Your task to perform on an android device: find snoozed emails in the gmail app Image 0: 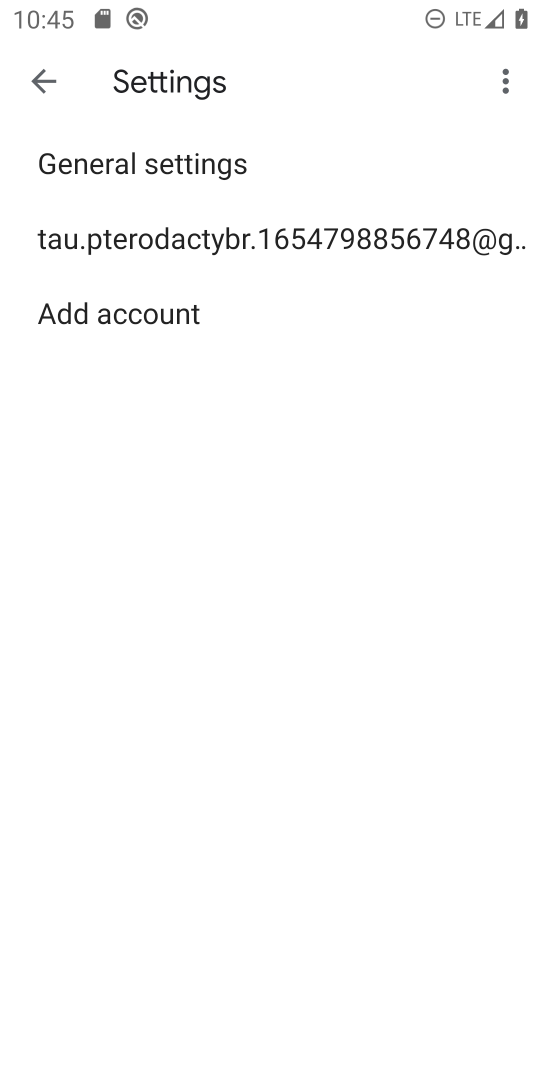
Step 0: press home button
Your task to perform on an android device: find snoozed emails in the gmail app Image 1: 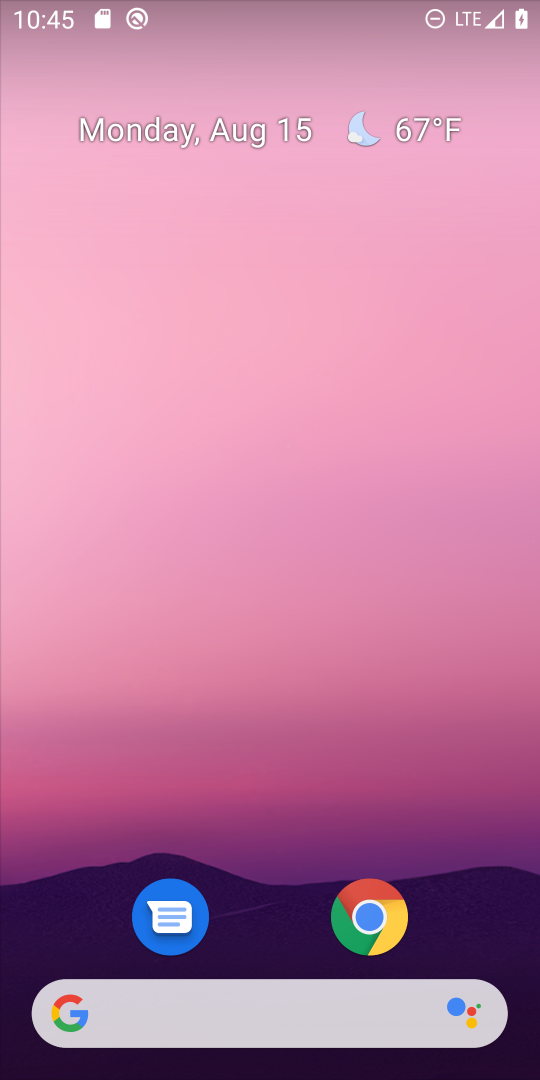
Step 1: drag from (283, 813) to (280, 0)
Your task to perform on an android device: find snoozed emails in the gmail app Image 2: 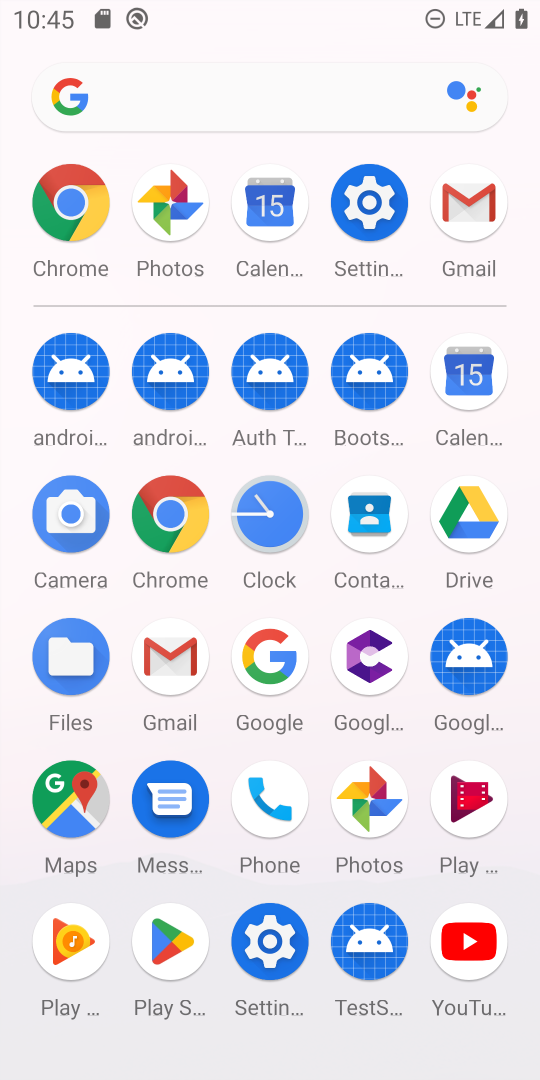
Step 2: click (483, 213)
Your task to perform on an android device: find snoozed emails in the gmail app Image 3: 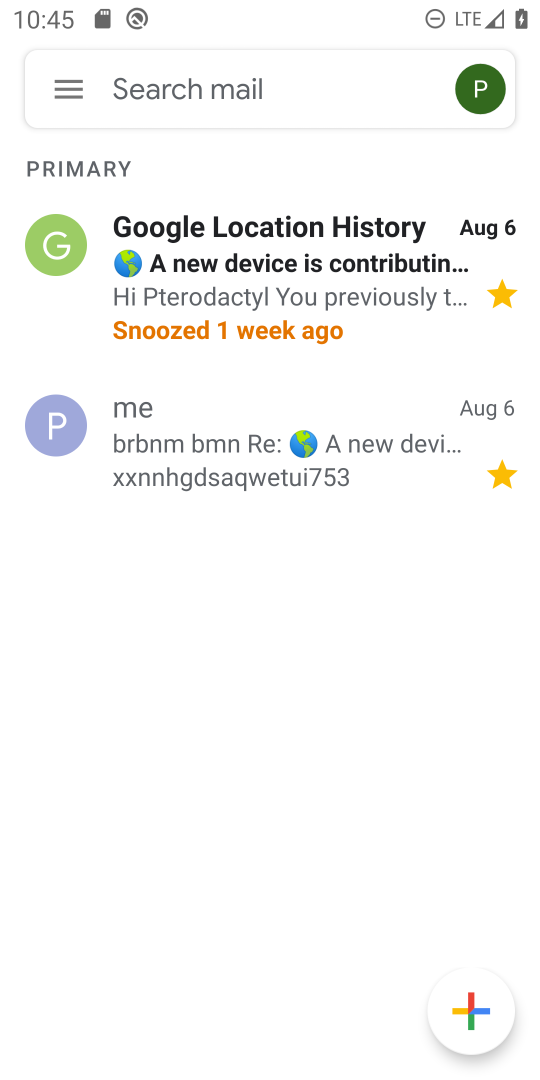
Step 3: click (69, 93)
Your task to perform on an android device: find snoozed emails in the gmail app Image 4: 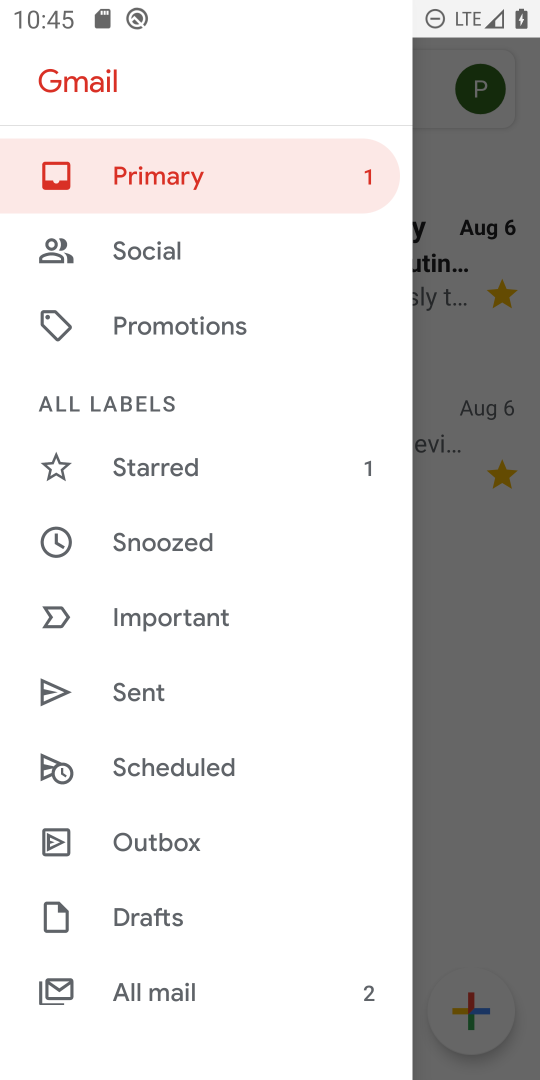
Step 4: click (176, 532)
Your task to perform on an android device: find snoozed emails in the gmail app Image 5: 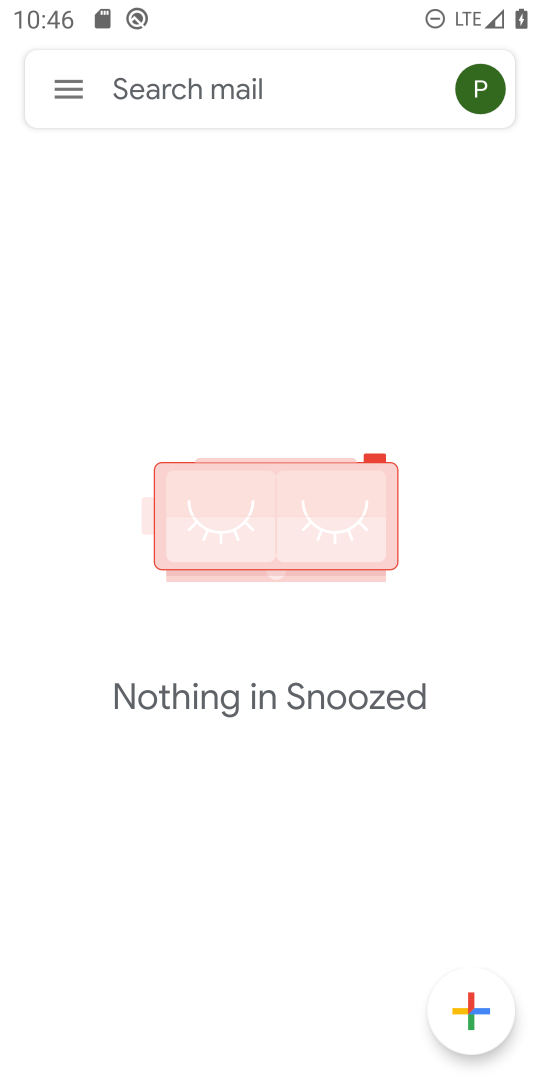
Step 5: task complete